Your task to perform on an android device: Check the weather Image 0: 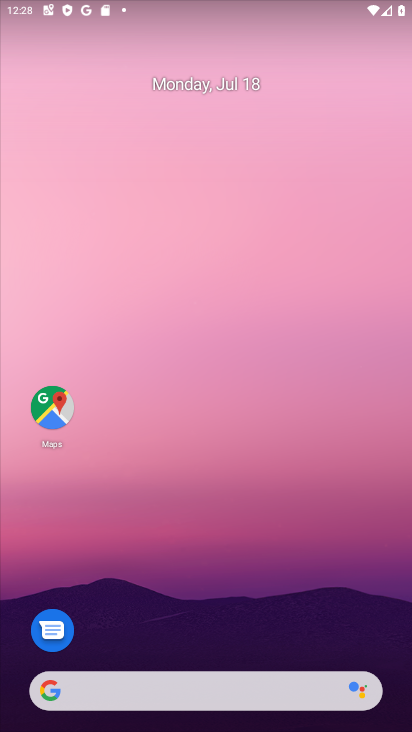
Step 0: drag from (264, 708) to (311, 4)
Your task to perform on an android device: Check the weather Image 1: 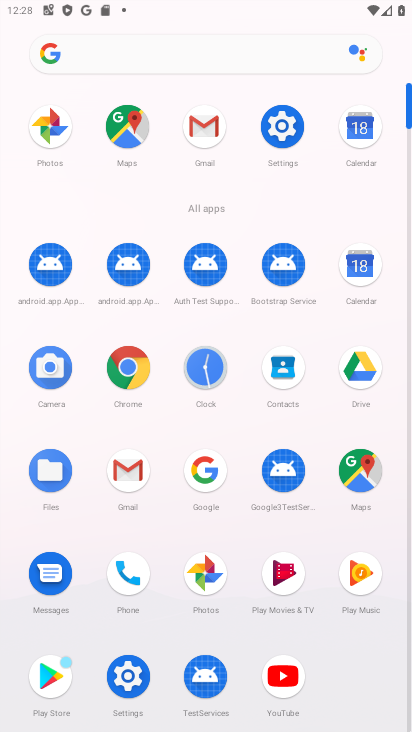
Step 1: click (139, 370)
Your task to perform on an android device: Check the weather Image 2: 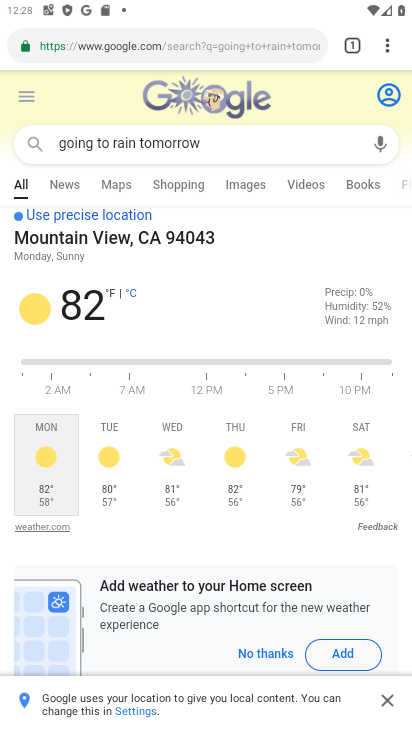
Step 2: click (230, 51)
Your task to perform on an android device: Check the weather Image 3: 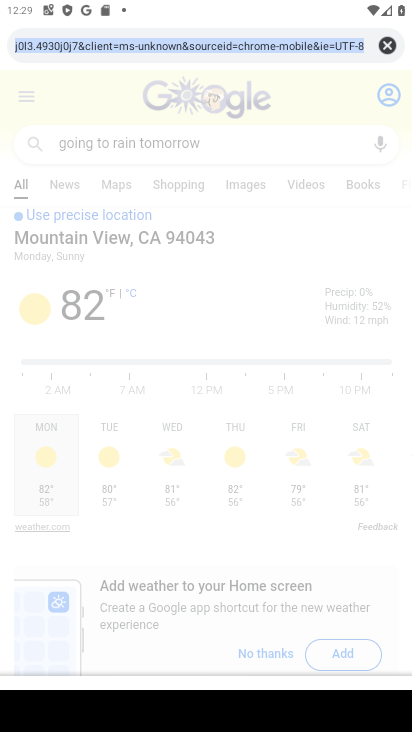
Step 3: type "check the weather"
Your task to perform on an android device: Check the weather Image 4: 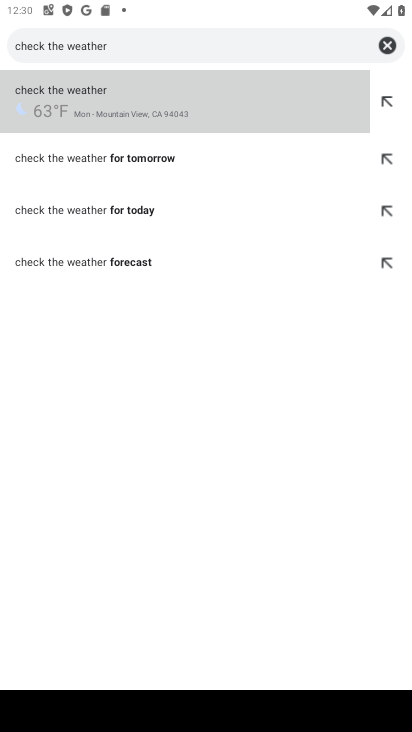
Step 4: click (30, 102)
Your task to perform on an android device: Check the weather Image 5: 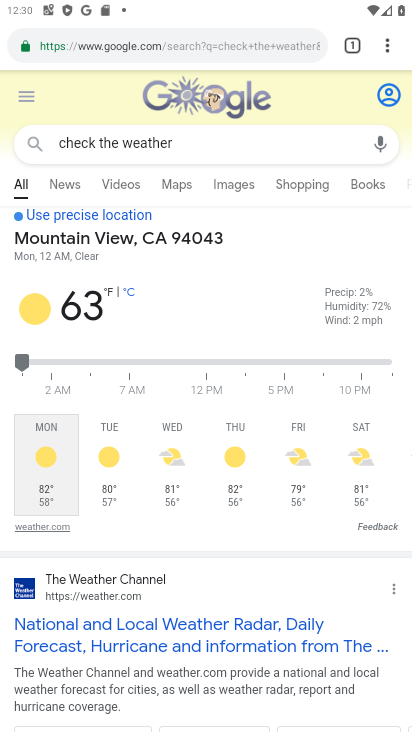
Step 5: task complete